Your task to perform on an android device: Search for Italian restaurants on Maps Image 0: 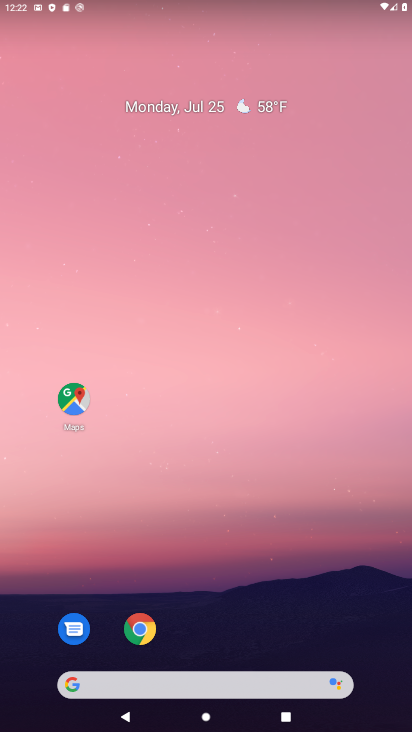
Step 0: drag from (182, 658) to (183, 76)
Your task to perform on an android device: Search for Italian restaurants on Maps Image 1: 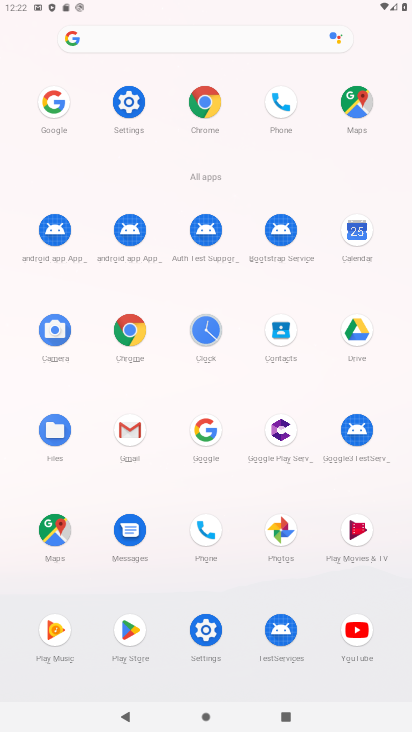
Step 1: click (64, 551)
Your task to perform on an android device: Search for Italian restaurants on Maps Image 2: 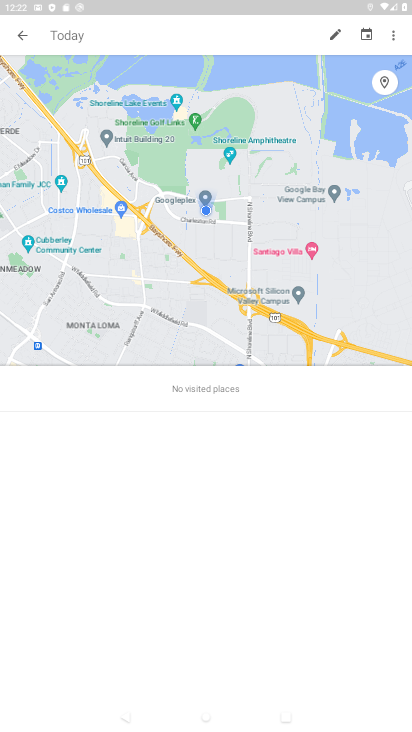
Step 2: click (24, 38)
Your task to perform on an android device: Search for Italian restaurants on Maps Image 3: 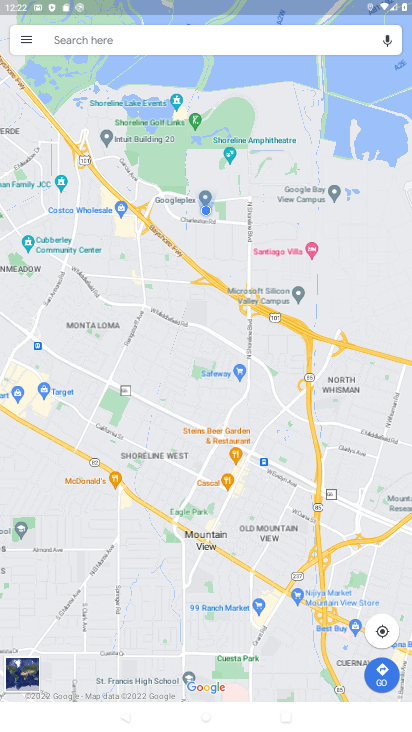
Step 3: click (145, 41)
Your task to perform on an android device: Search for Italian restaurants on Maps Image 4: 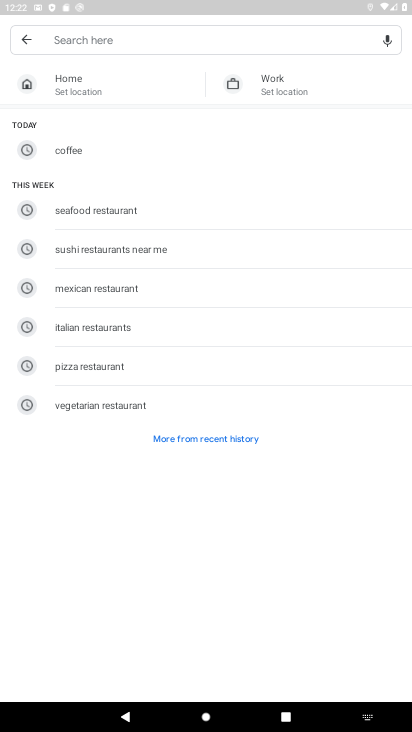
Step 4: type "Italian restaurants"
Your task to perform on an android device: Search for Italian restaurants on Maps Image 5: 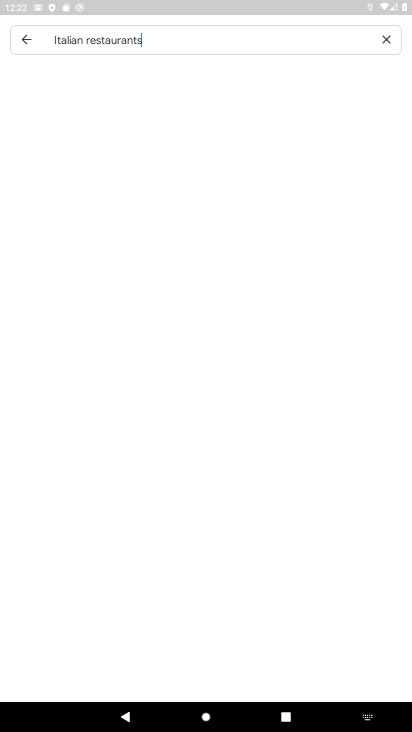
Step 5: type ""
Your task to perform on an android device: Search for Italian restaurants on Maps Image 6: 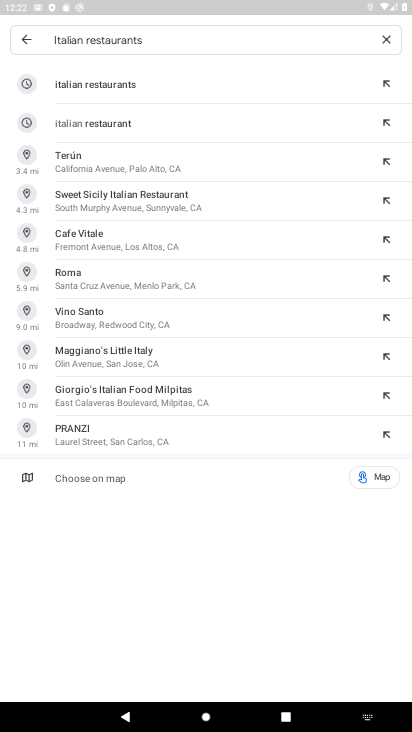
Step 6: click (125, 67)
Your task to perform on an android device: Search for Italian restaurants on Maps Image 7: 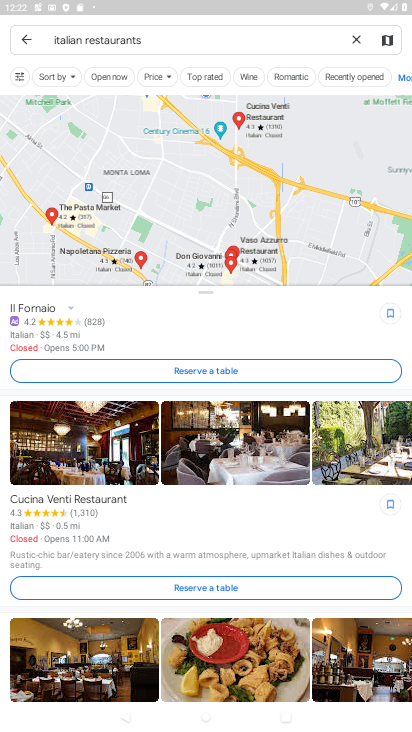
Step 7: task complete